Your task to perform on an android device: set the stopwatch Image 0: 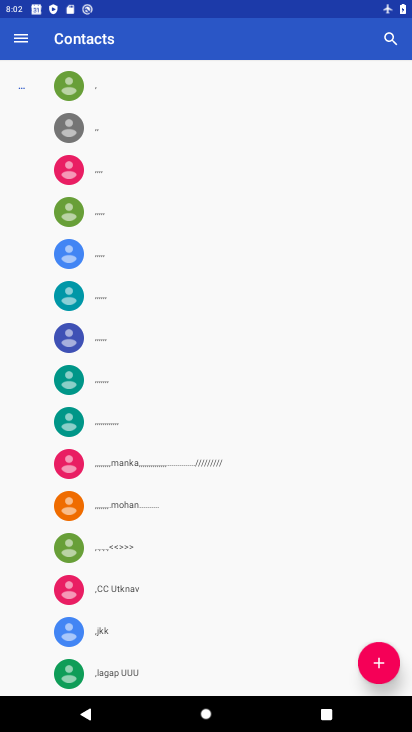
Step 0: press home button
Your task to perform on an android device: set the stopwatch Image 1: 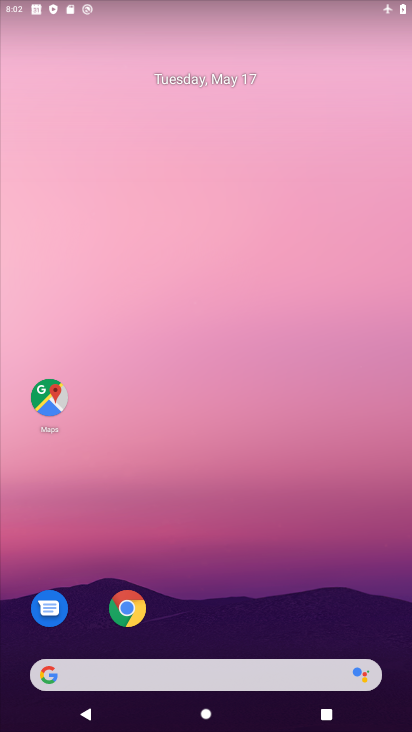
Step 1: drag from (346, 560) to (327, 122)
Your task to perform on an android device: set the stopwatch Image 2: 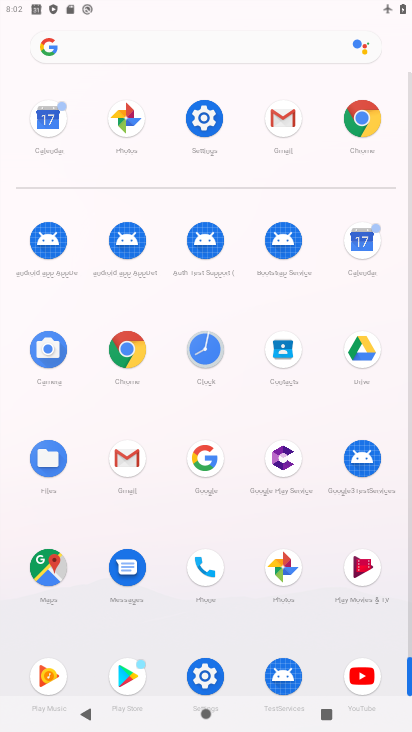
Step 2: click (208, 358)
Your task to perform on an android device: set the stopwatch Image 3: 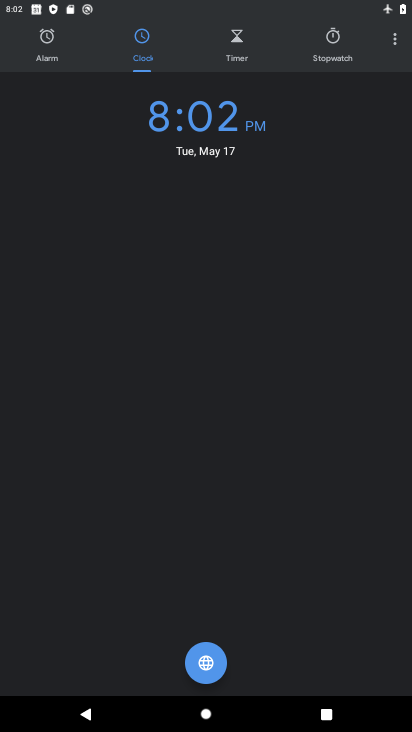
Step 3: click (338, 43)
Your task to perform on an android device: set the stopwatch Image 4: 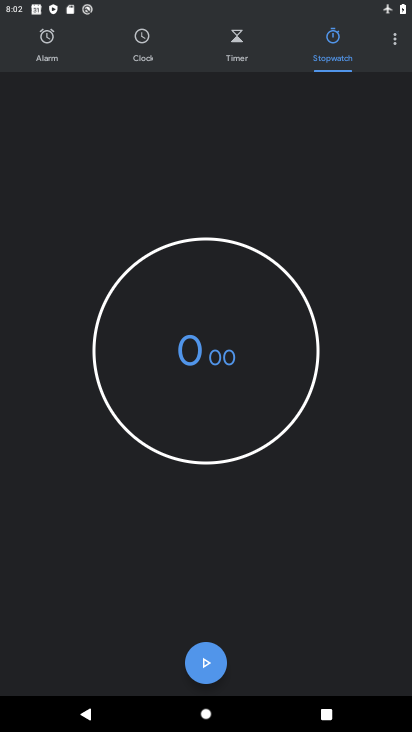
Step 4: click (209, 676)
Your task to perform on an android device: set the stopwatch Image 5: 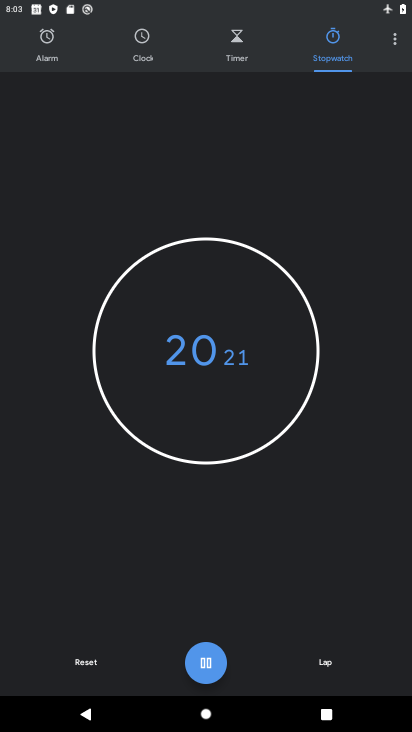
Step 5: click (222, 665)
Your task to perform on an android device: set the stopwatch Image 6: 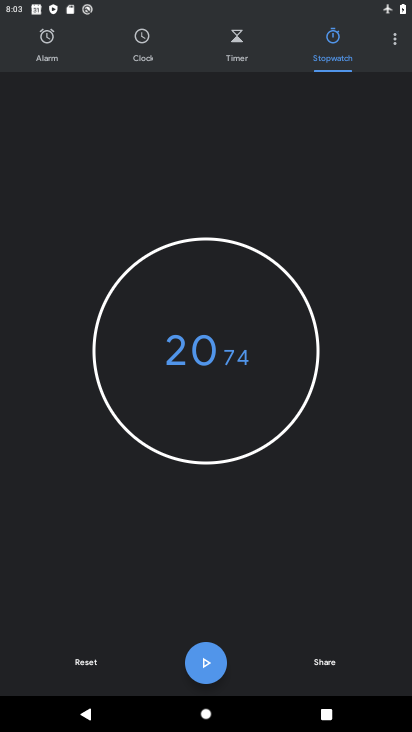
Step 6: task complete